Your task to perform on an android device: Go to settings Image 0: 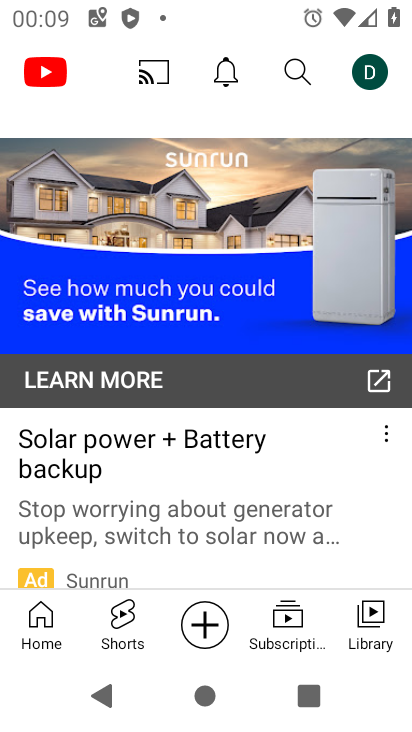
Step 0: press home button
Your task to perform on an android device: Go to settings Image 1: 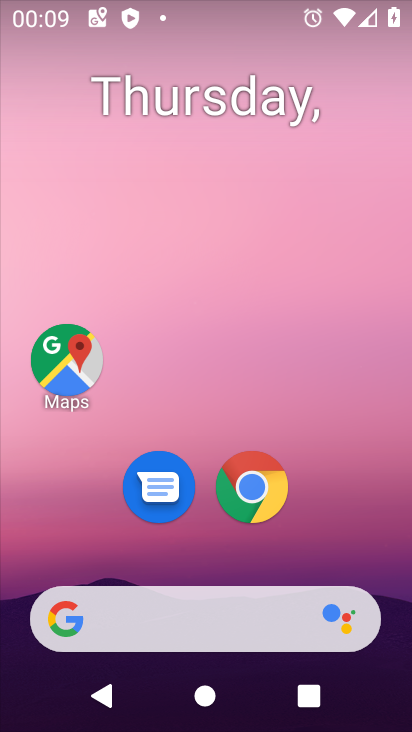
Step 1: drag from (343, 567) to (370, 6)
Your task to perform on an android device: Go to settings Image 2: 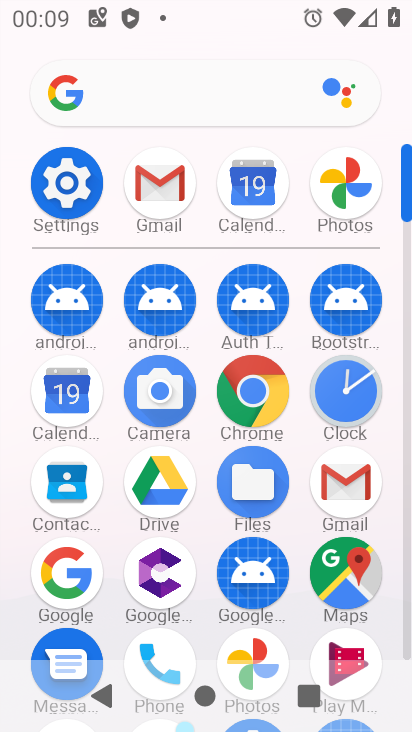
Step 2: click (58, 185)
Your task to perform on an android device: Go to settings Image 3: 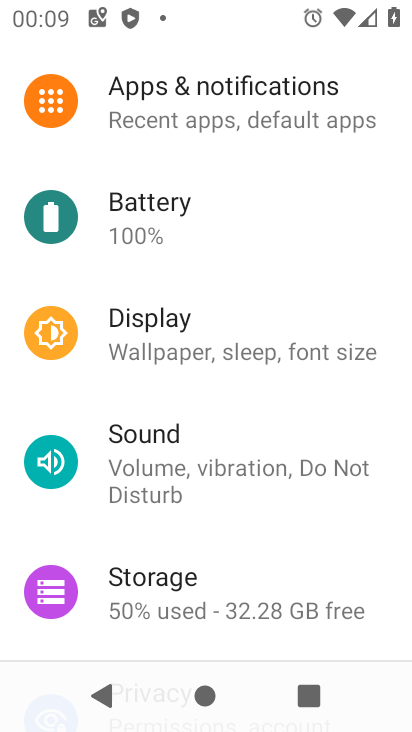
Step 3: task complete